Your task to perform on an android device: Open my contact list Image 0: 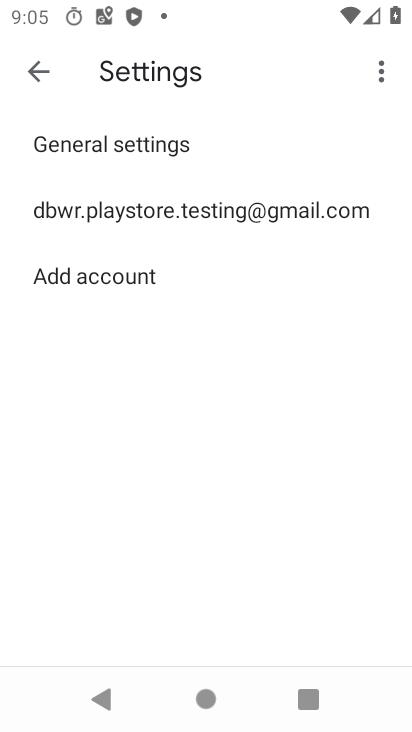
Step 0: click (33, 63)
Your task to perform on an android device: Open my contact list Image 1: 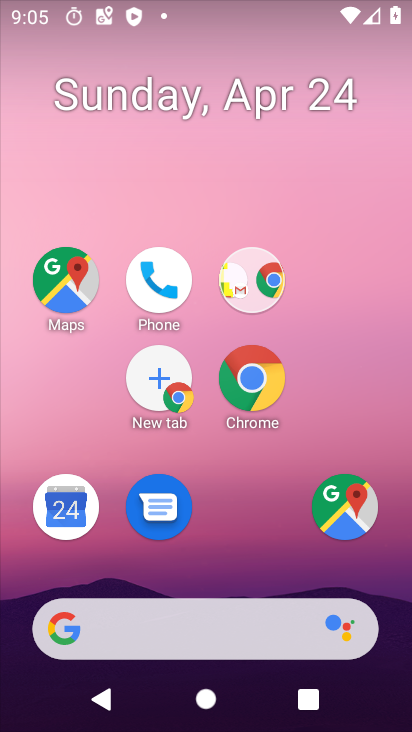
Step 1: drag from (270, 683) to (195, 10)
Your task to perform on an android device: Open my contact list Image 2: 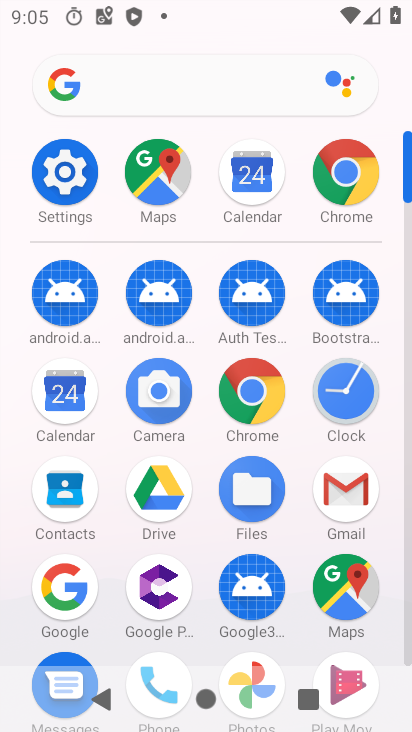
Step 2: click (54, 484)
Your task to perform on an android device: Open my contact list Image 3: 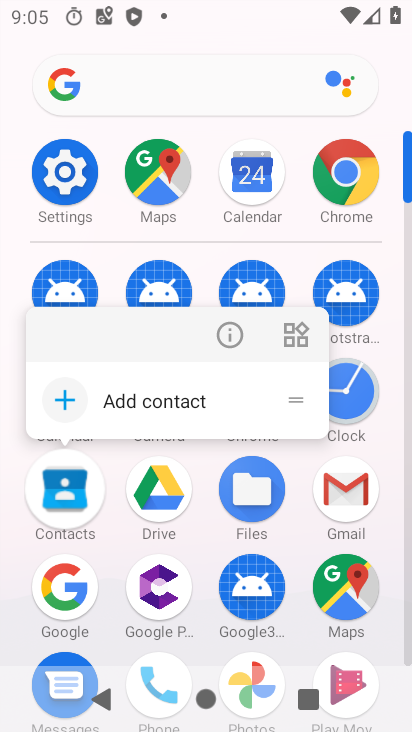
Step 3: click (54, 484)
Your task to perform on an android device: Open my contact list Image 4: 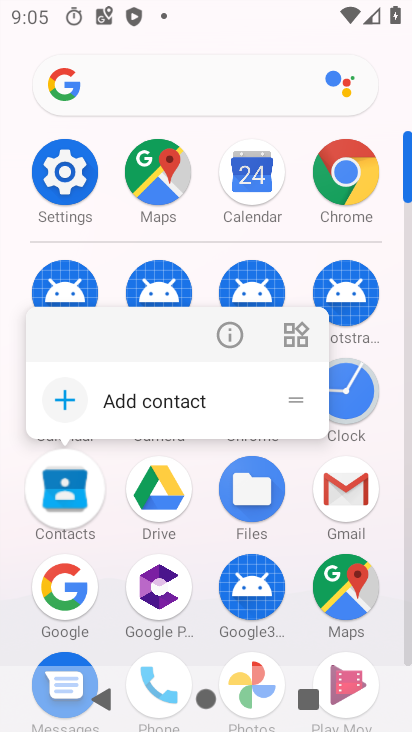
Step 4: click (60, 482)
Your task to perform on an android device: Open my contact list Image 5: 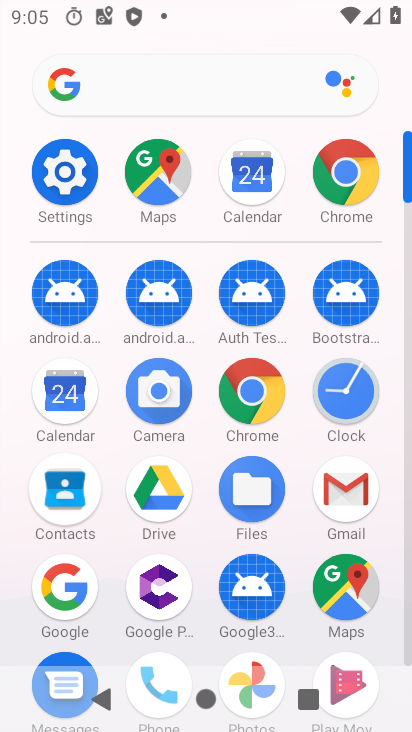
Step 5: click (68, 492)
Your task to perform on an android device: Open my contact list Image 6: 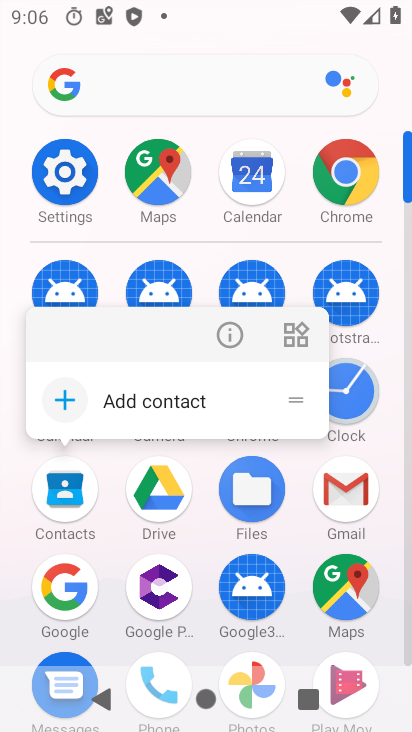
Step 6: click (48, 482)
Your task to perform on an android device: Open my contact list Image 7: 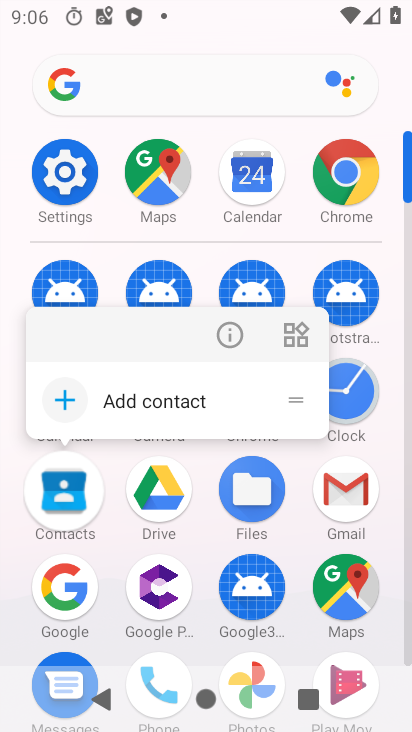
Step 7: click (47, 484)
Your task to perform on an android device: Open my contact list Image 8: 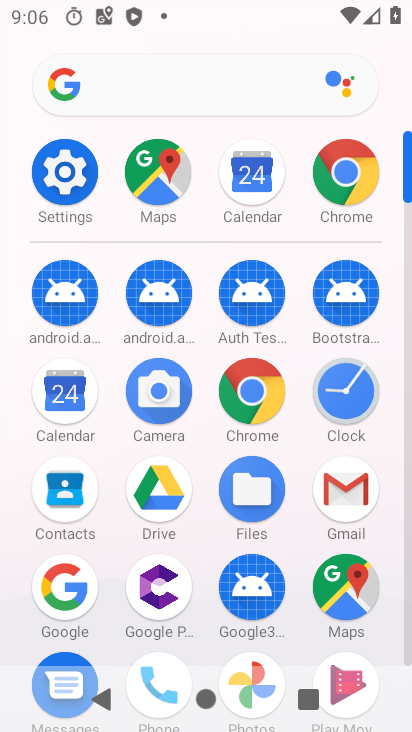
Step 8: click (57, 491)
Your task to perform on an android device: Open my contact list Image 9: 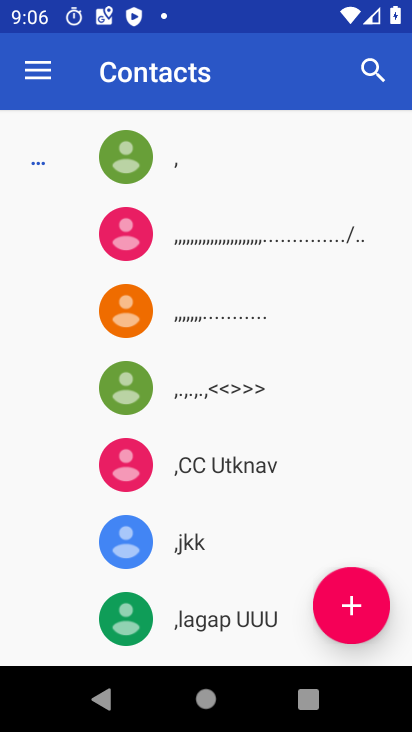
Step 9: click (346, 604)
Your task to perform on an android device: Open my contact list Image 10: 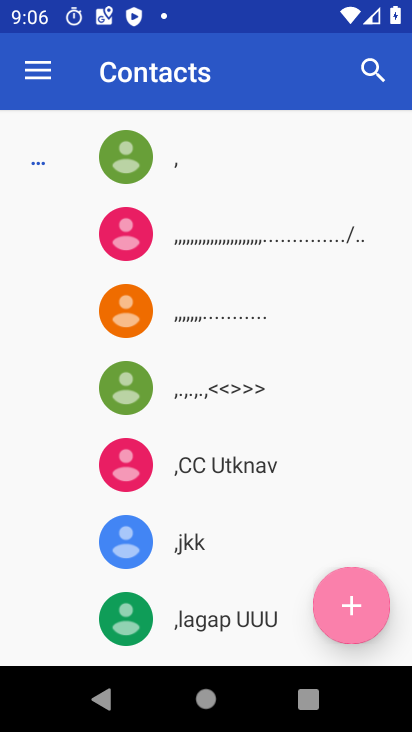
Step 10: click (346, 604)
Your task to perform on an android device: Open my contact list Image 11: 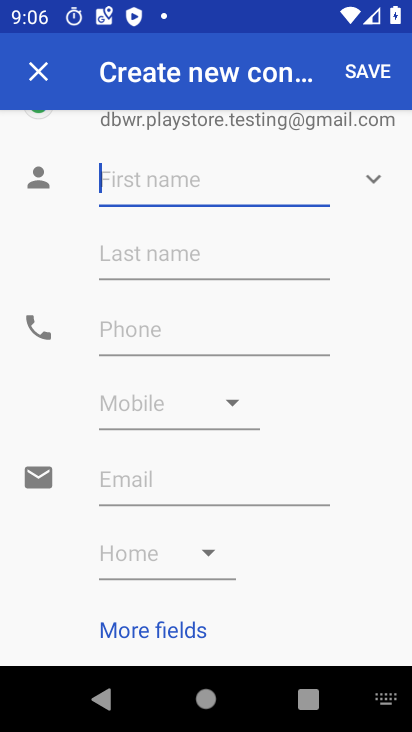
Step 11: click (36, 63)
Your task to perform on an android device: Open my contact list Image 12: 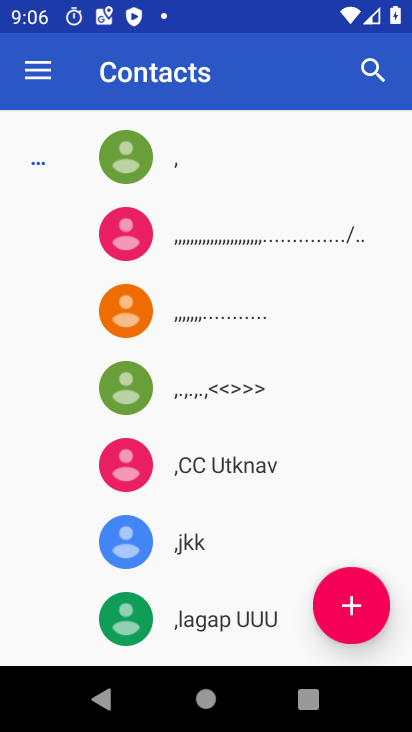
Step 12: task complete